Your task to perform on an android device: turn on improve location accuracy Image 0: 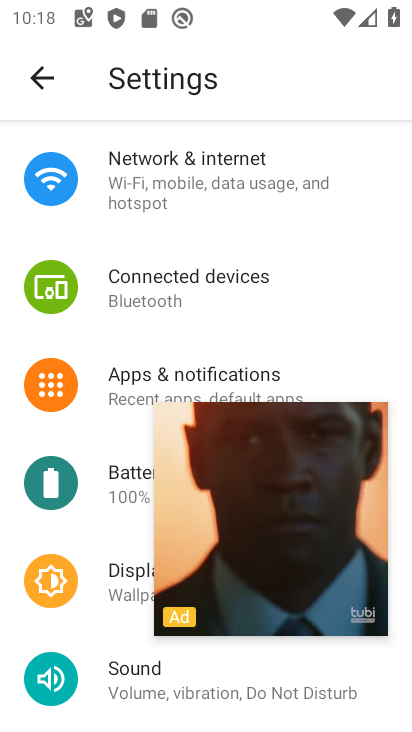
Step 0: press home button
Your task to perform on an android device: turn on improve location accuracy Image 1: 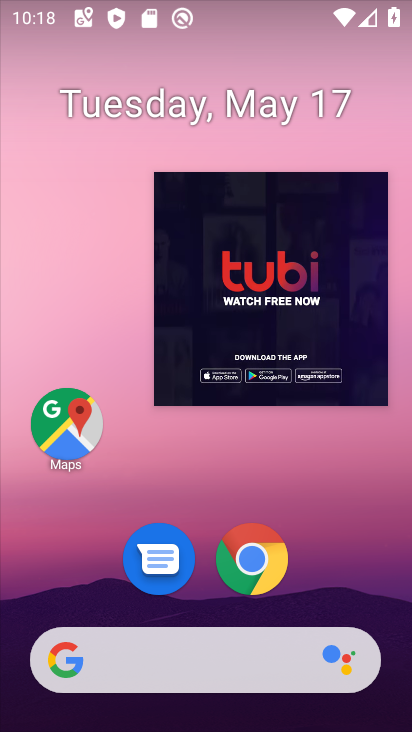
Step 1: click (288, 286)
Your task to perform on an android device: turn on improve location accuracy Image 2: 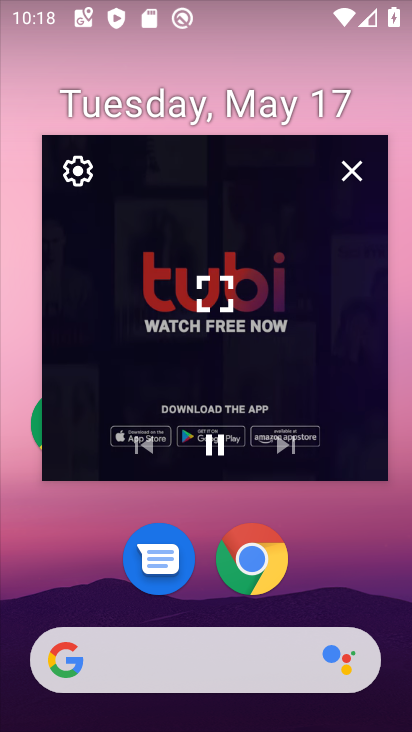
Step 2: click (351, 175)
Your task to perform on an android device: turn on improve location accuracy Image 3: 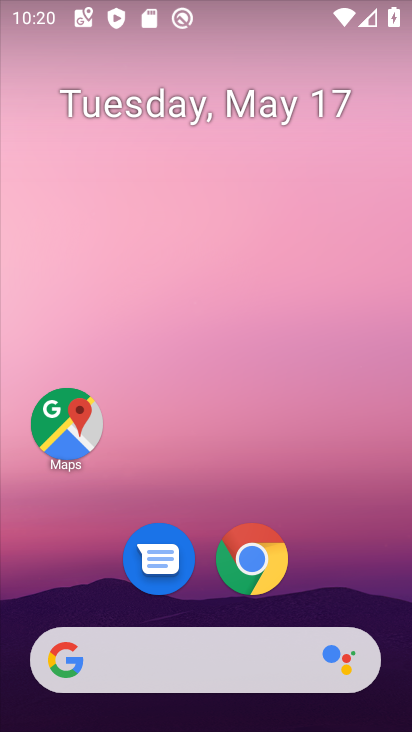
Step 3: drag from (205, 723) to (174, 90)
Your task to perform on an android device: turn on improve location accuracy Image 4: 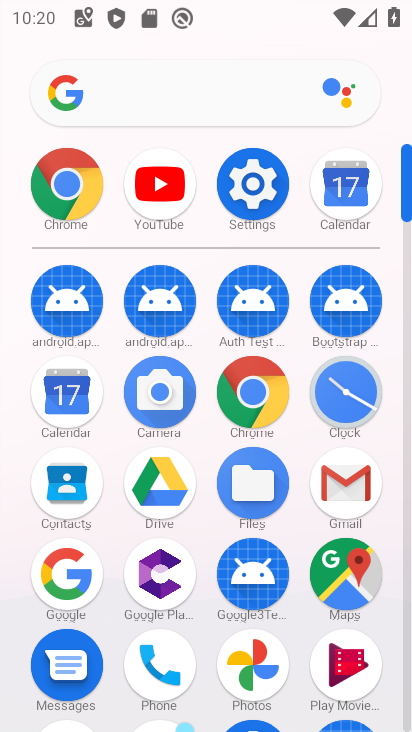
Step 4: click (261, 192)
Your task to perform on an android device: turn on improve location accuracy Image 5: 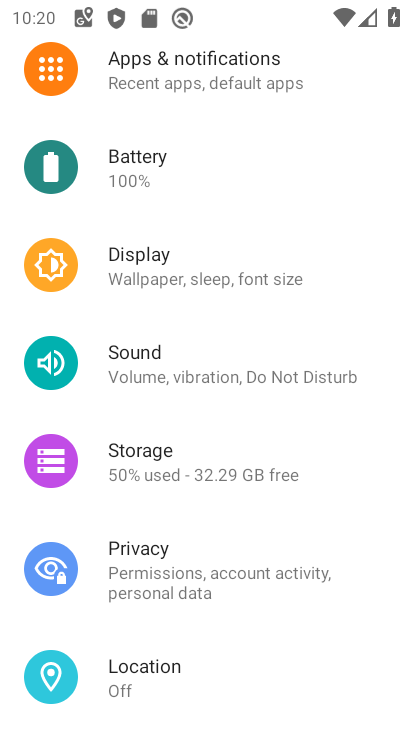
Step 5: click (119, 666)
Your task to perform on an android device: turn on improve location accuracy Image 6: 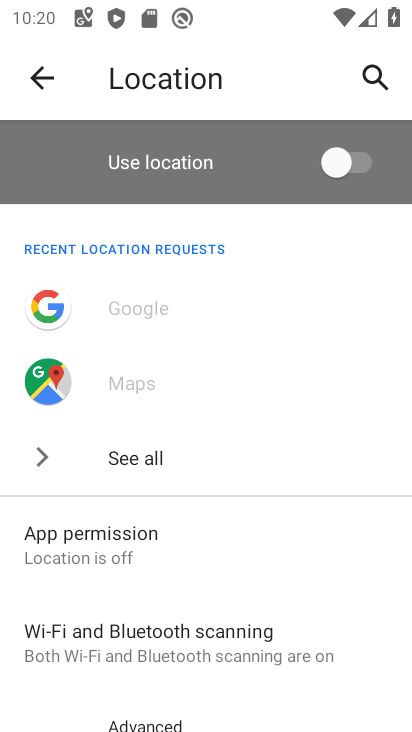
Step 6: drag from (194, 662) to (160, 358)
Your task to perform on an android device: turn on improve location accuracy Image 7: 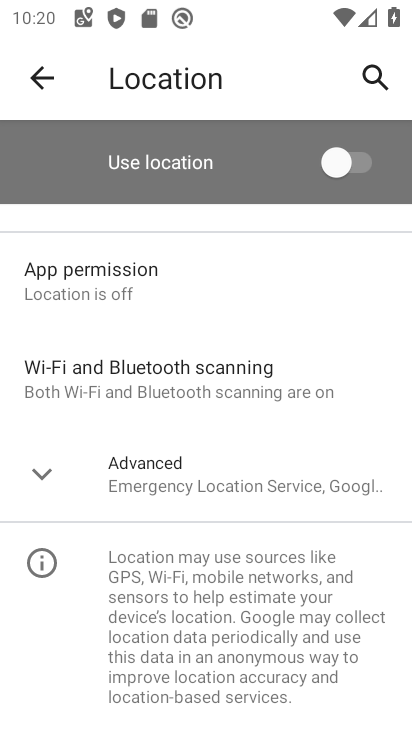
Step 7: click (151, 492)
Your task to perform on an android device: turn on improve location accuracy Image 8: 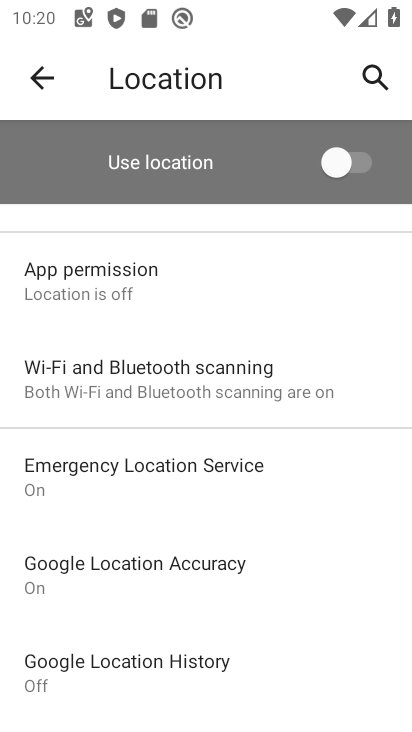
Step 8: click (147, 563)
Your task to perform on an android device: turn on improve location accuracy Image 9: 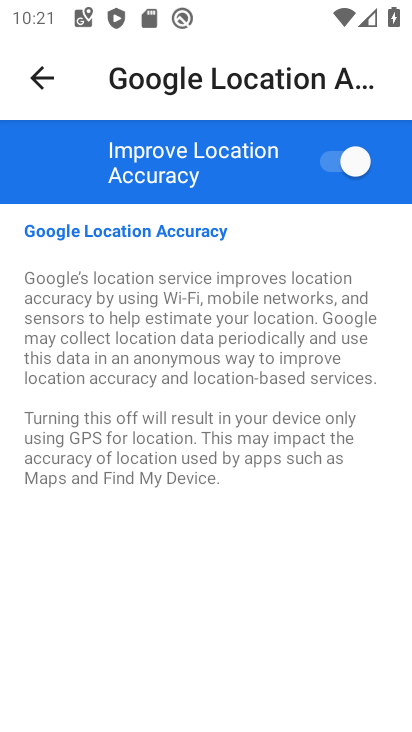
Step 9: task complete